Your task to perform on an android device: toggle improve location accuracy Image 0: 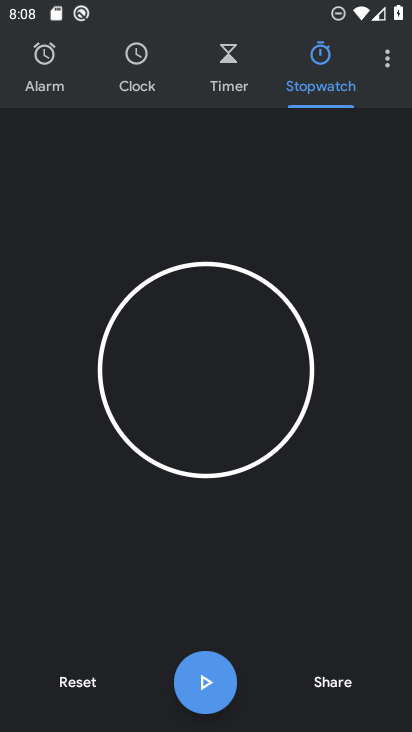
Step 0: press home button
Your task to perform on an android device: toggle improve location accuracy Image 1: 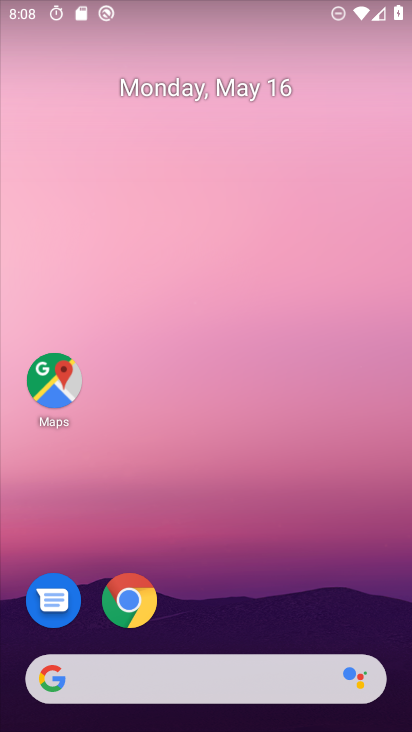
Step 1: drag from (286, 452) to (362, 222)
Your task to perform on an android device: toggle improve location accuracy Image 2: 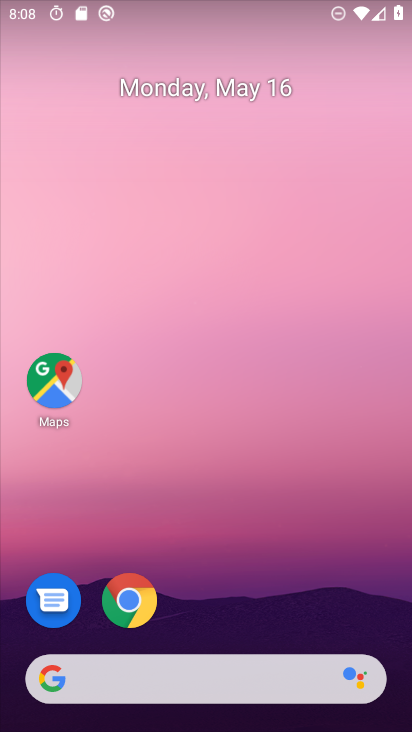
Step 2: drag from (210, 666) to (271, 221)
Your task to perform on an android device: toggle improve location accuracy Image 3: 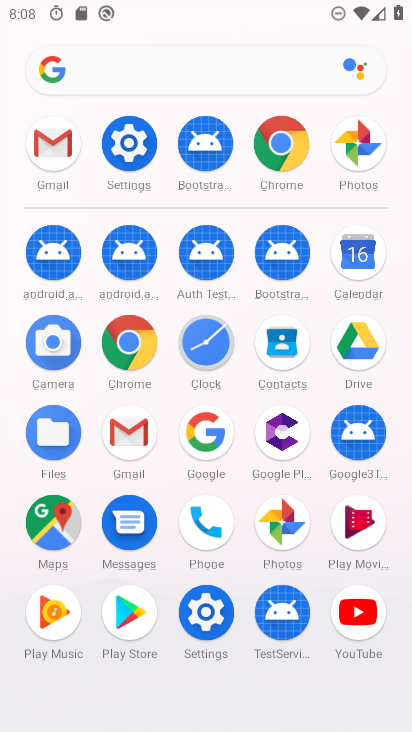
Step 3: click (132, 149)
Your task to perform on an android device: toggle improve location accuracy Image 4: 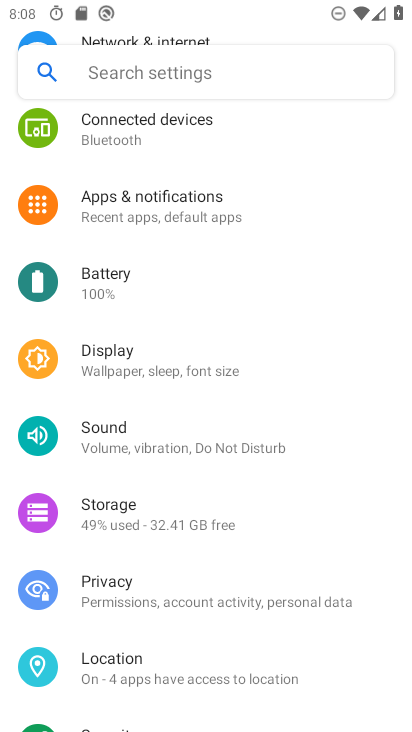
Step 4: click (143, 678)
Your task to perform on an android device: toggle improve location accuracy Image 5: 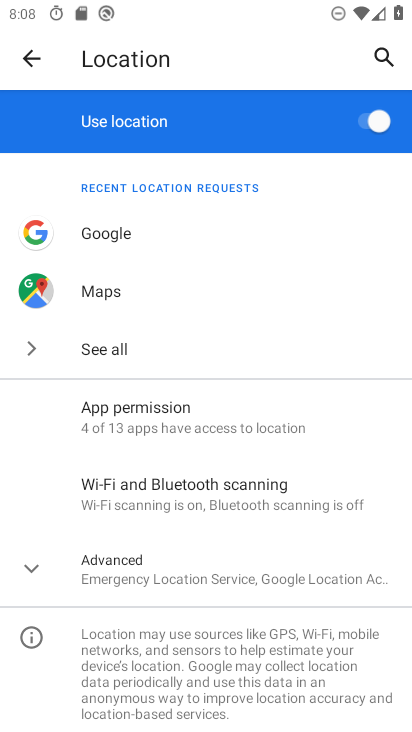
Step 5: click (125, 569)
Your task to perform on an android device: toggle improve location accuracy Image 6: 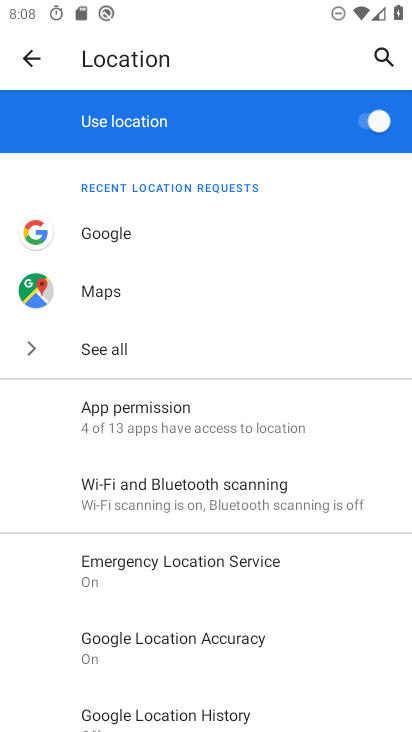
Step 6: click (204, 638)
Your task to perform on an android device: toggle improve location accuracy Image 7: 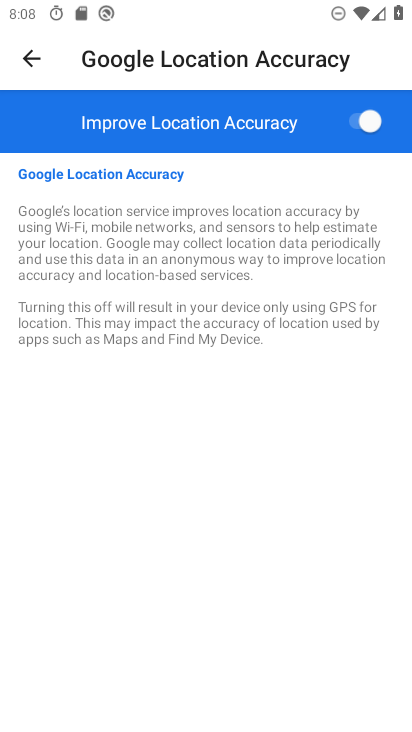
Step 7: click (358, 117)
Your task to perform on an android device: toggle improve location accuracy Image 8: 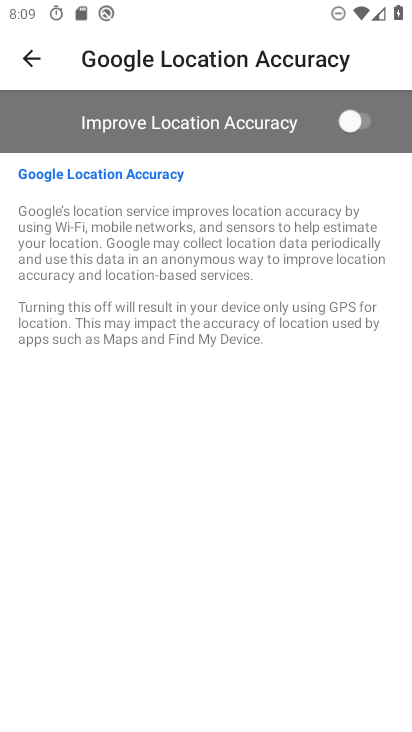
Step 8: task complete